Your task to perform on an android device: What's the weather going to be this weekend? Image 0: 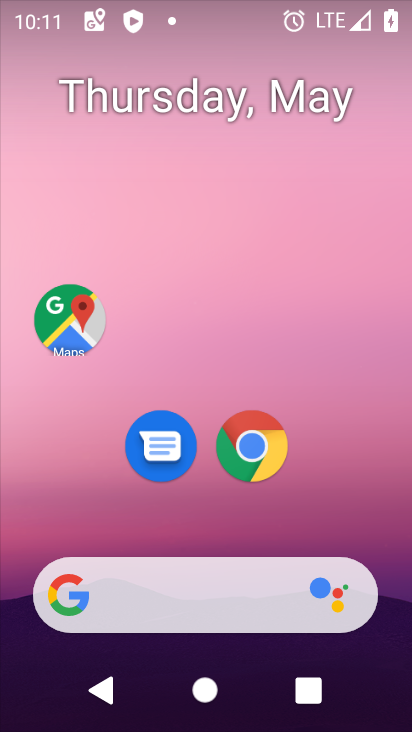
Step 0: drag from (16, 144) to (400, 272)
Your task to perform on an android device: What's the weather going to be this weekend? Image 1: 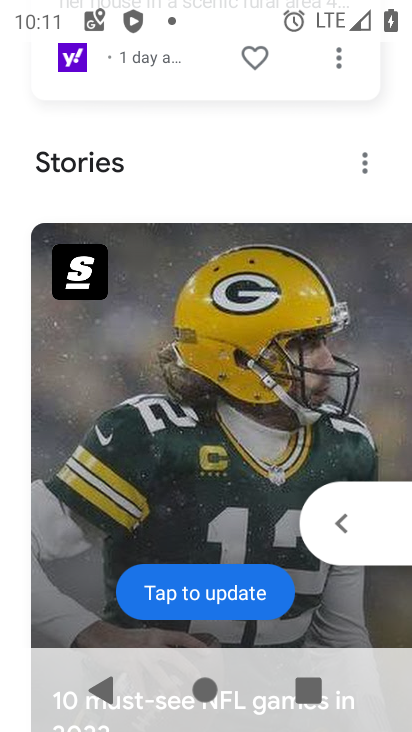
Step 1: drag from (203, 126) to (197, 450)
Your task to perform on an android device: What's the weather going to be this weekend? Image 2: 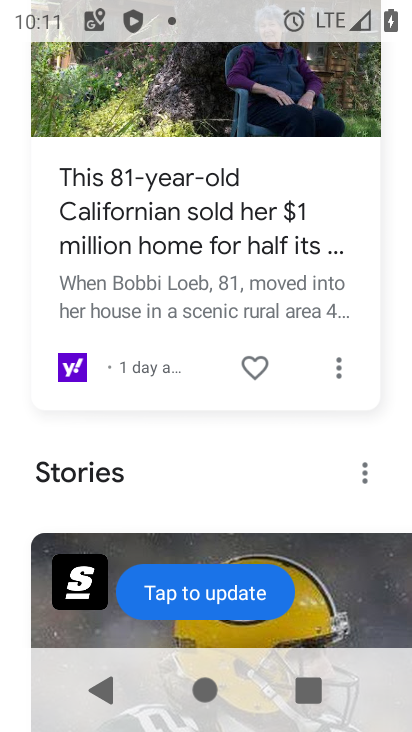
Step 2: drag from (227, 236) to (211, 534)
Your task to perform on an android device: What's the weather going to be this weekend? Image 3: 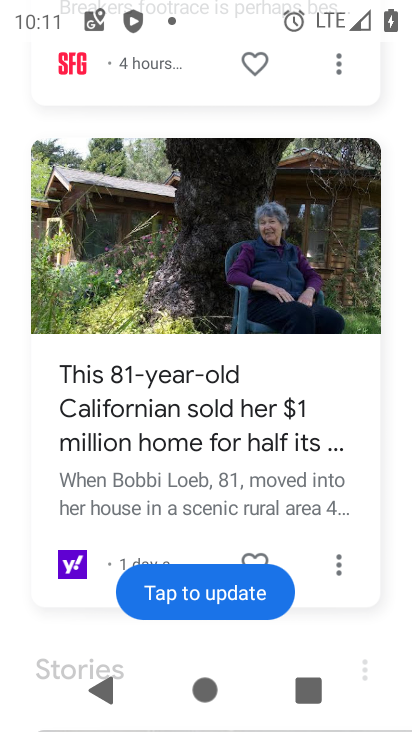
Step 3: drag from (230, 273) to (245, 602)
Your task to perform on an android device: What's the weather going to be this weekend? Image 4: 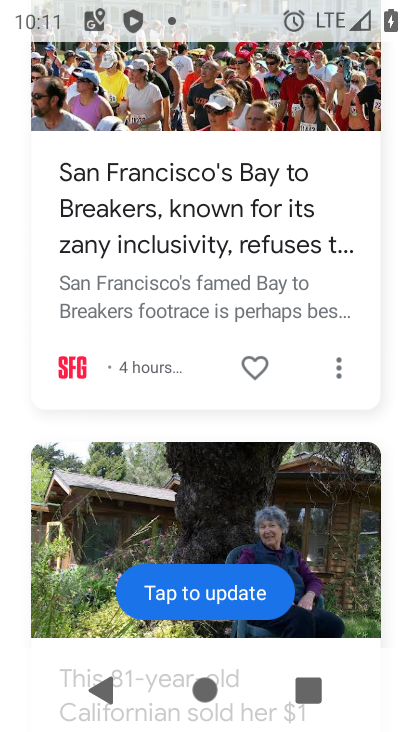
Step 4: drag from (231, 294) to (265, 654)
Your task to perform on an android device: What's the weather going to be this weekend? Image 5: 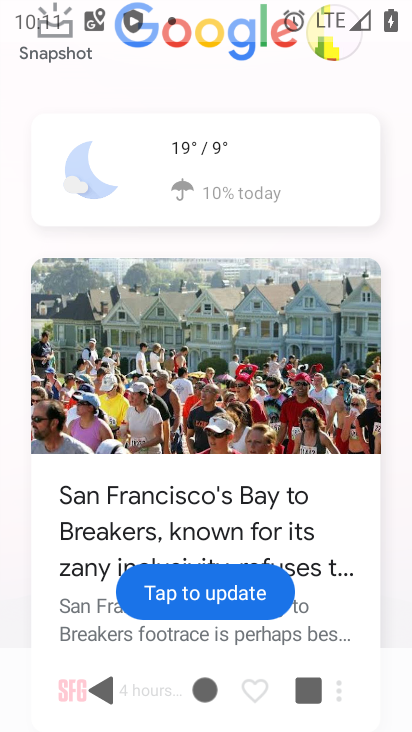
Step 5: click (201, 147)
Your task to perform on an android device: What's the weather going to be this weekend? Image 6: 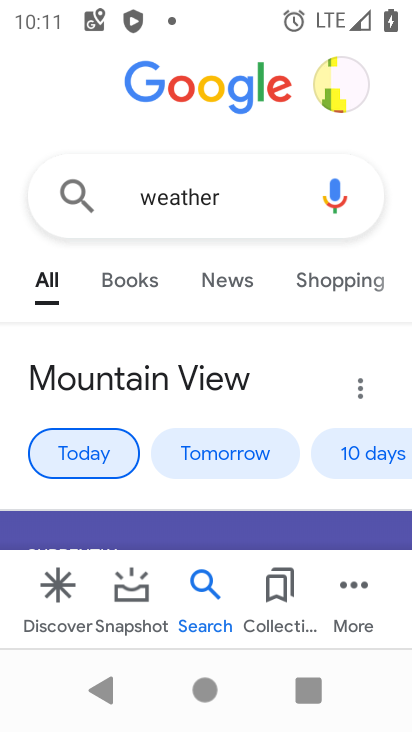
Step 6: drag from (235, 531) to (181, 187)
Your task to perform on an android device: What's the weather going to be this weekend? Image 7: 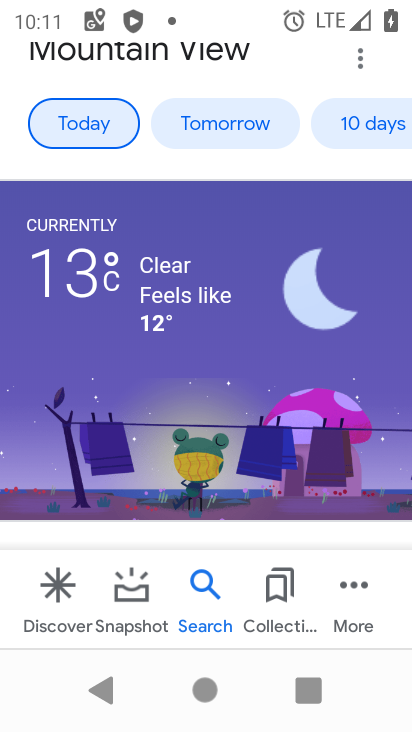
Step 7: click (361, 120)
Your task to perform on an android device: What's the weather going to be this weekend? Image 8: 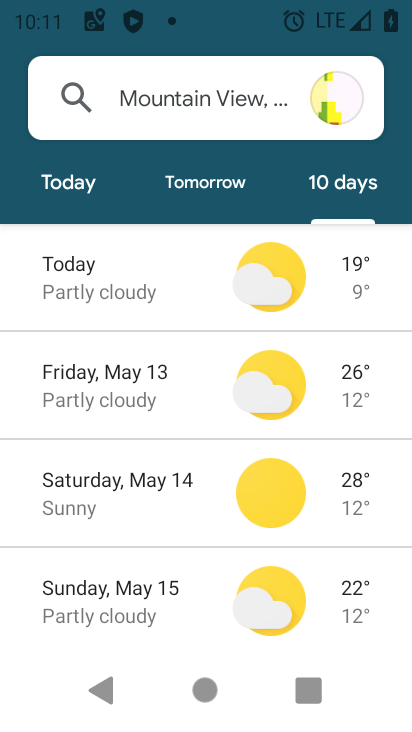
Step 8: task complete